Your task to perform on an android device: Go to eBay Image 0: 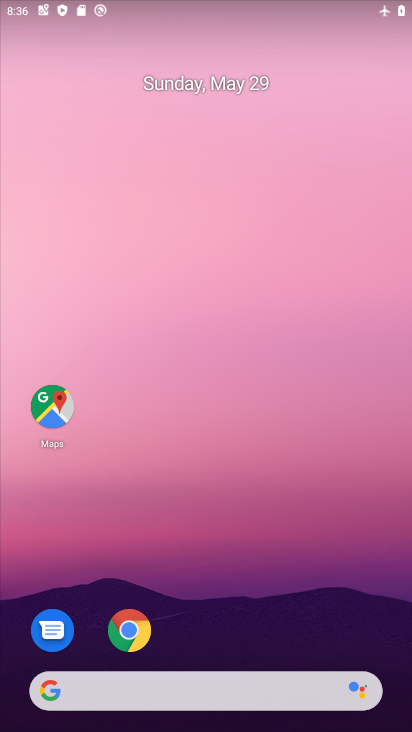
Step 0: click (133, 646)
Your task to perform on an android device: Go to eBay Image 1: 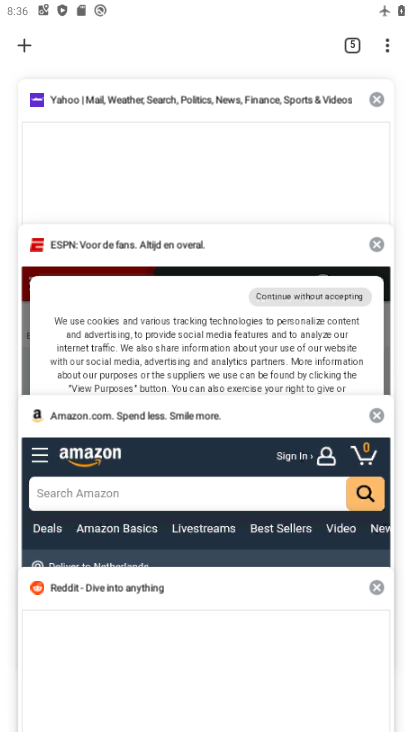
Step 1: click (24, 52)
Your task to perform on an android device: Go to eBay Image 2: 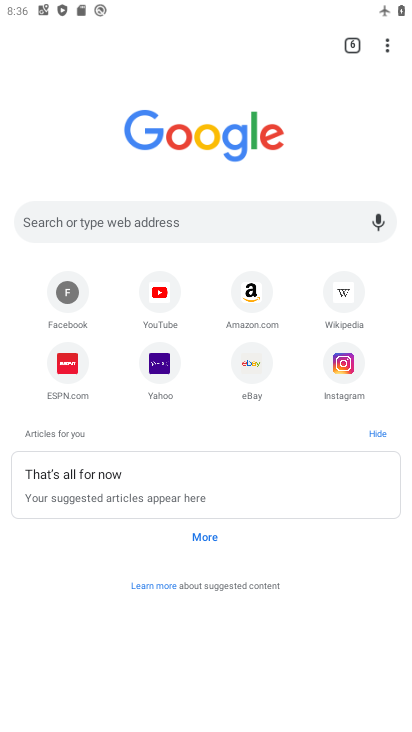
Step 2: click (248, 376)
Your task to perform on an android device: Go to eBay Image 3: 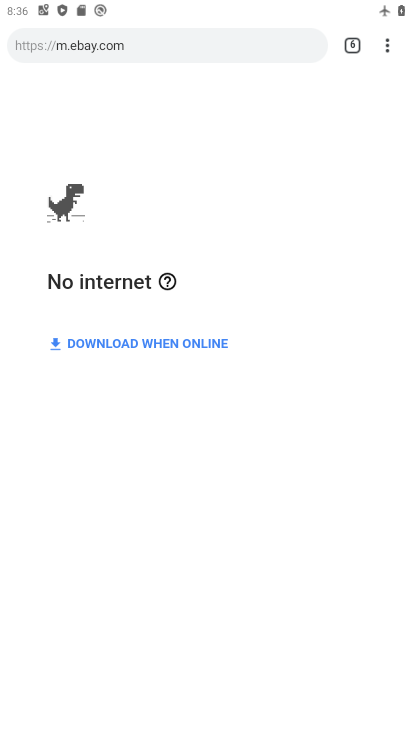
Step 3: task complete